Your task to perform on an android device: delete browsing data in the chrome app Image 0: 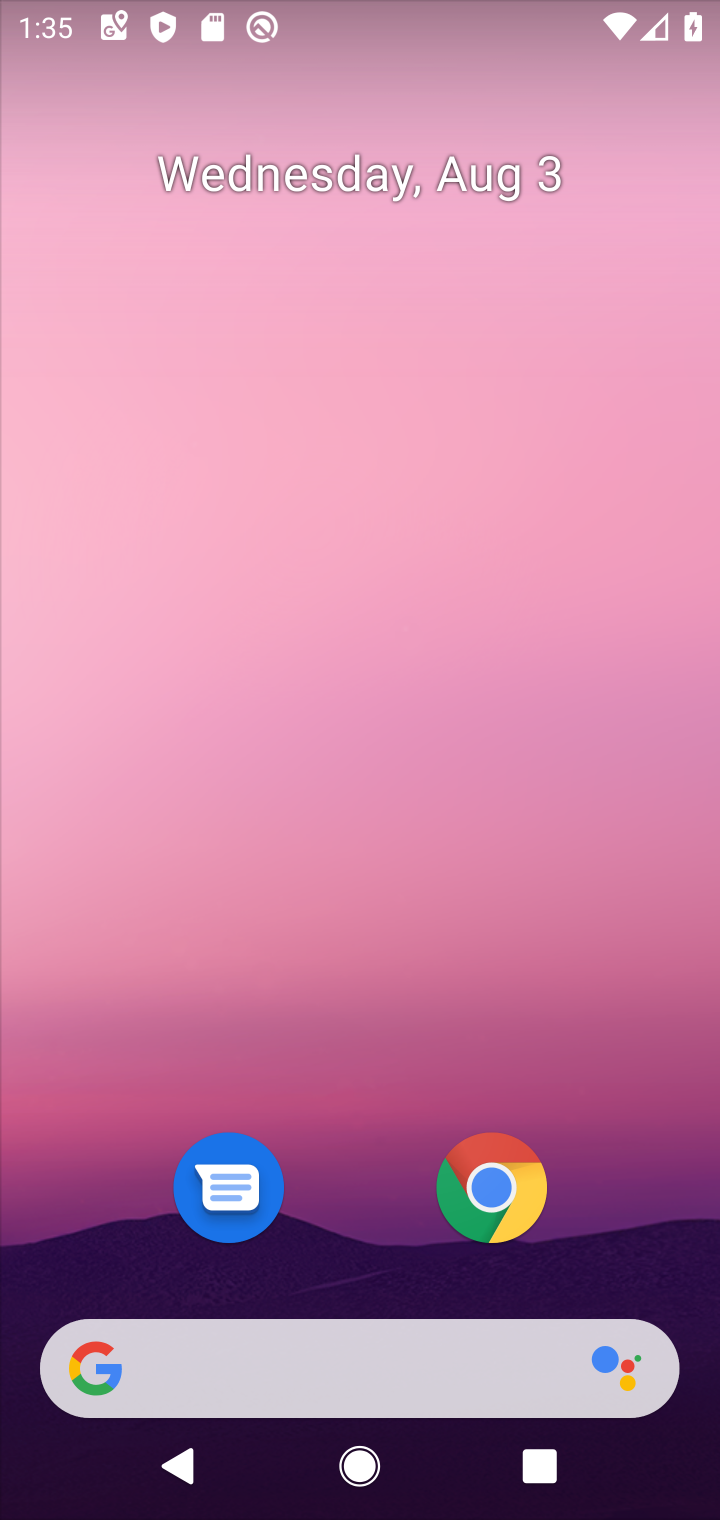
Step 0: click (492, 1186)
Your task to perform on an android device: delete browsing data in the chrome app Image 1: 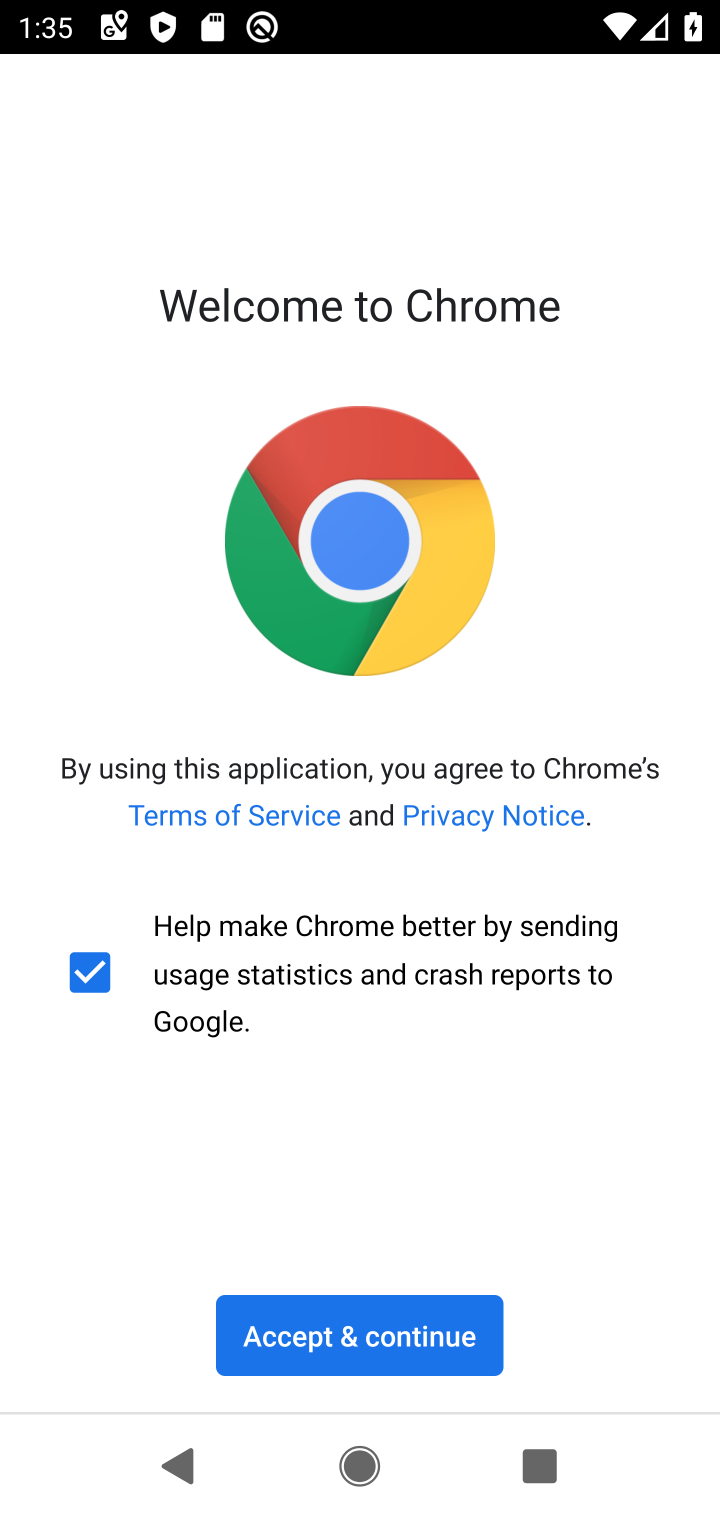
Step 1: click (445, 1320)
Your task to perform on an android device: delete browsing data in the chrome app Image 2: 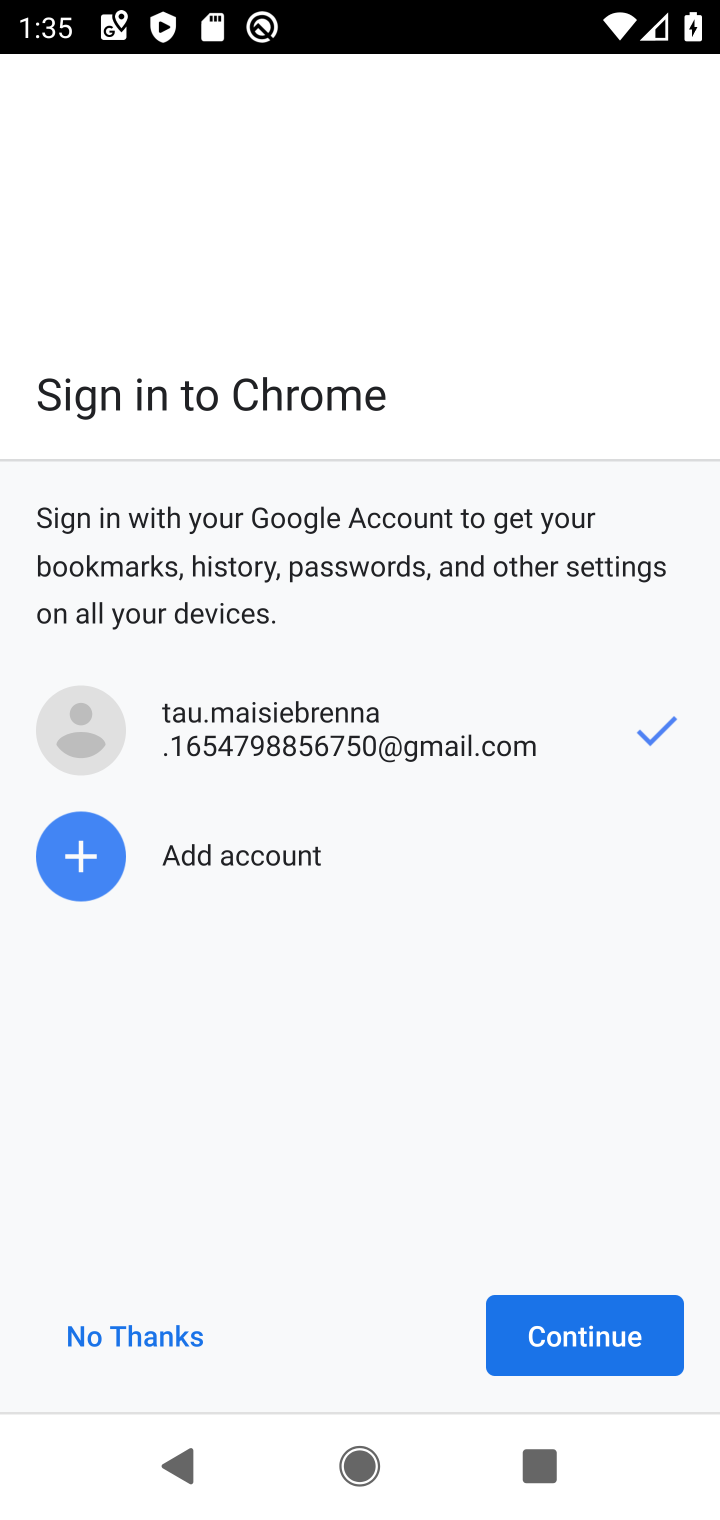
Step 2: click (530, 1327)
Your task to perform on an android device: delete browsing data in the chrome app Image 3: 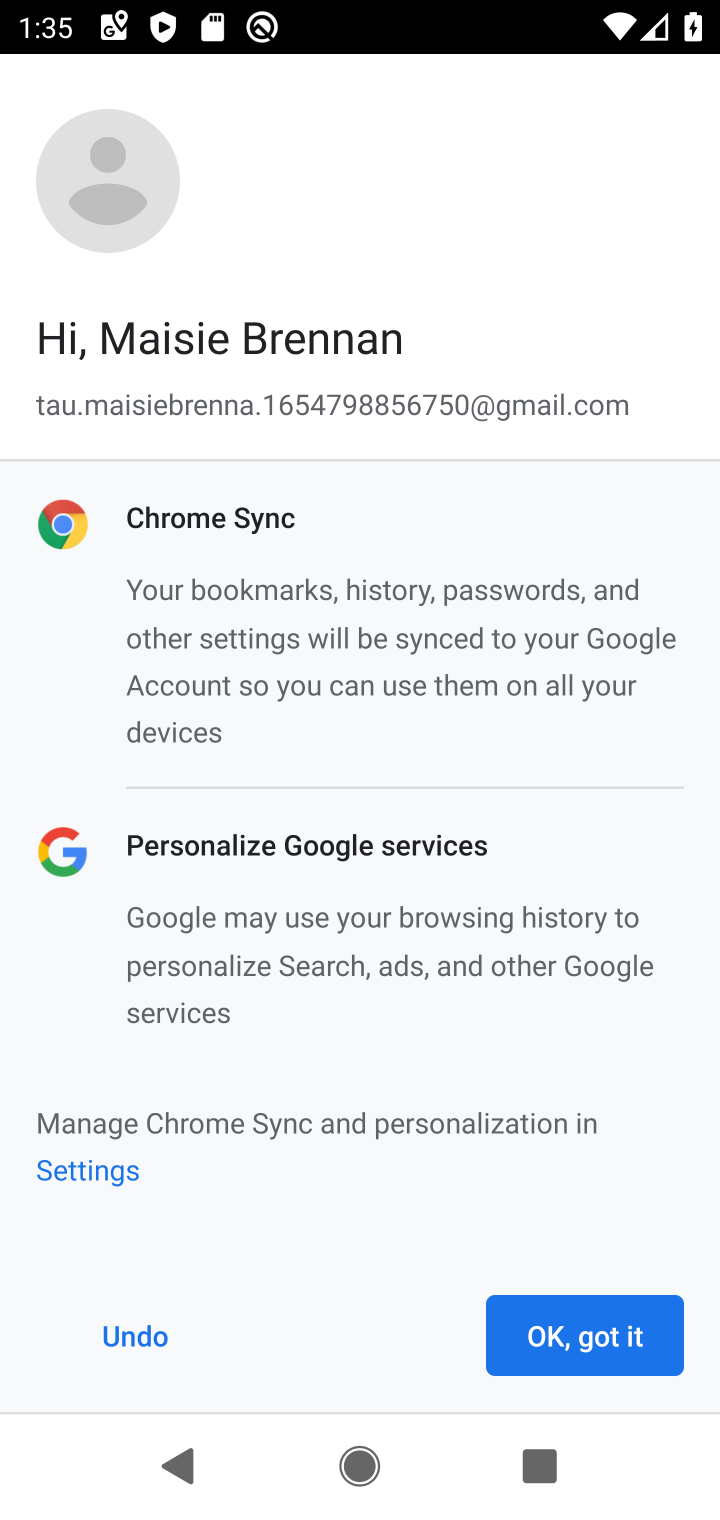
Step 3: click (530, 1327)
Your task to perform on an android device: delete browsing data in the chrome app Image 4: 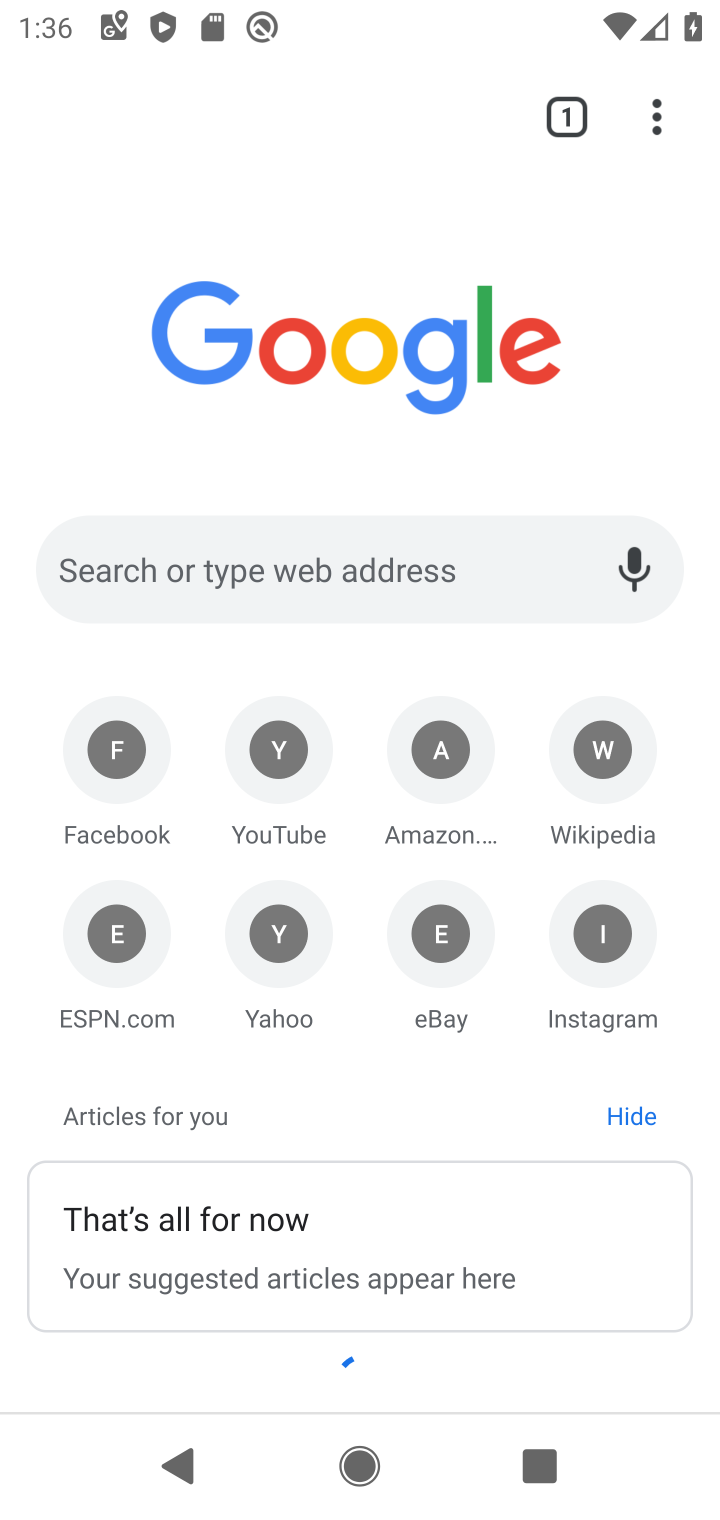
Step 4: click (656, 114)
Your task to perform on an android device: delete browsing data in the chrome app Image 5: 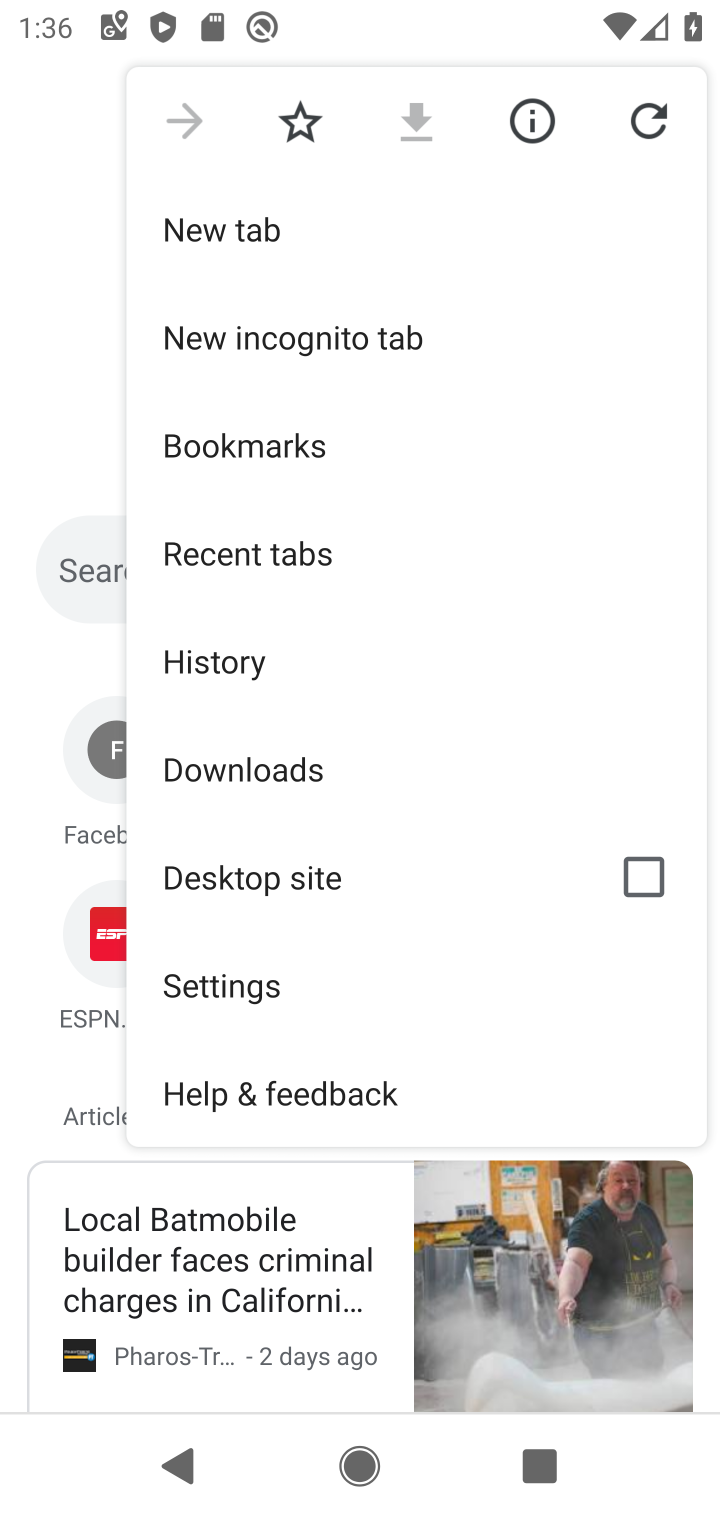
Step 5: click (244, 652)
Your task to perform on an android device: delete browsing data in the chrome app Image 6: 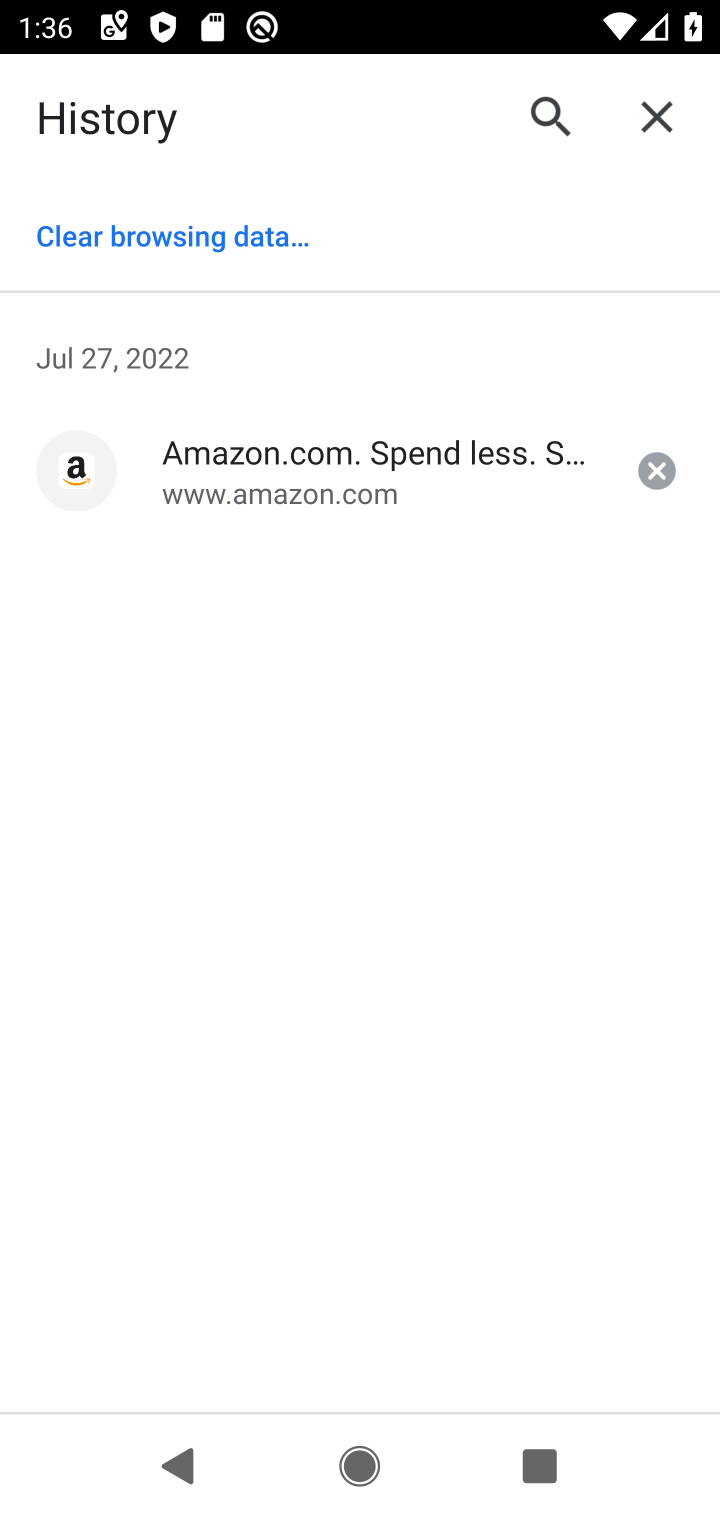
Step 6: click (192, 228)
Your task to perform on an android device: delete browsing data in the chrome app Image 7: 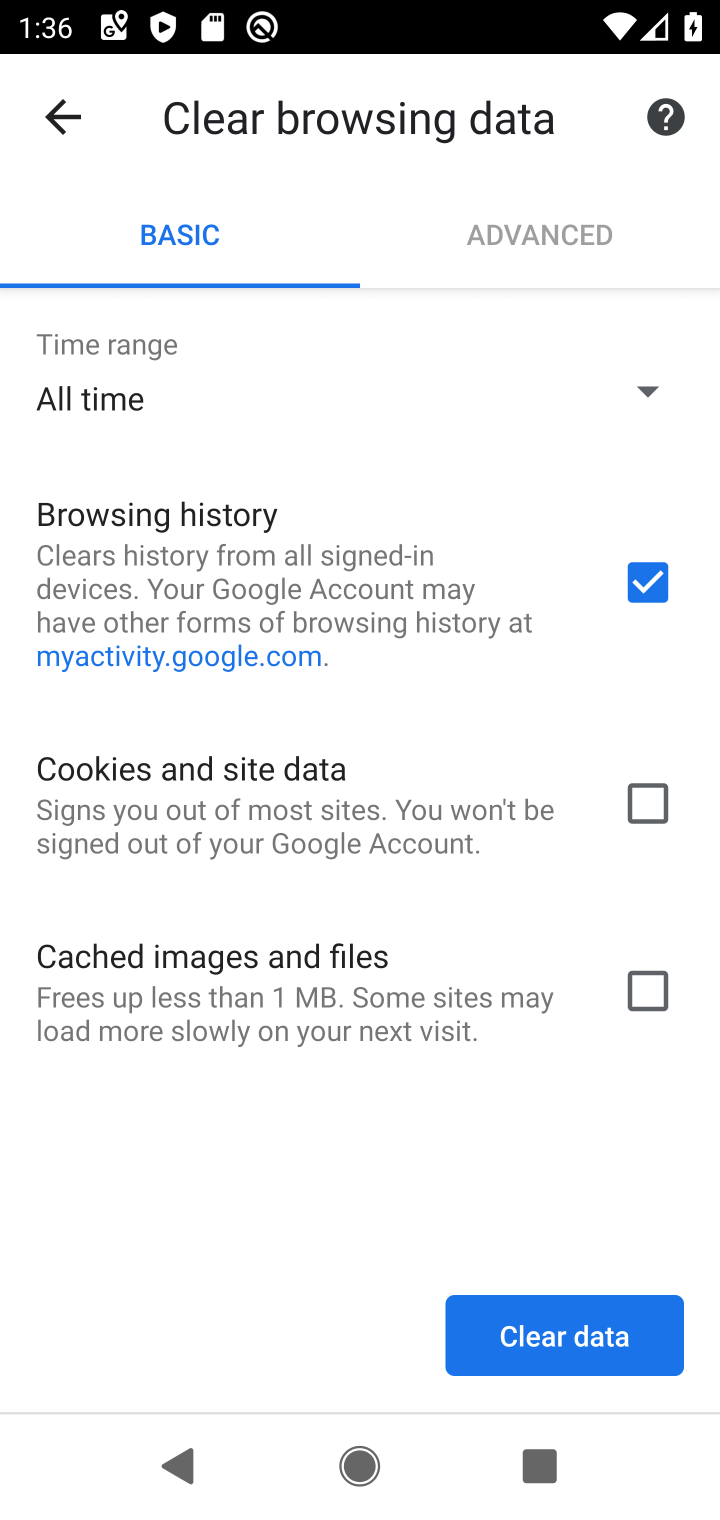
Step 7: click (632, 799)
Your task to perform on an android device: delete browsing data in the chrome app Image 8: 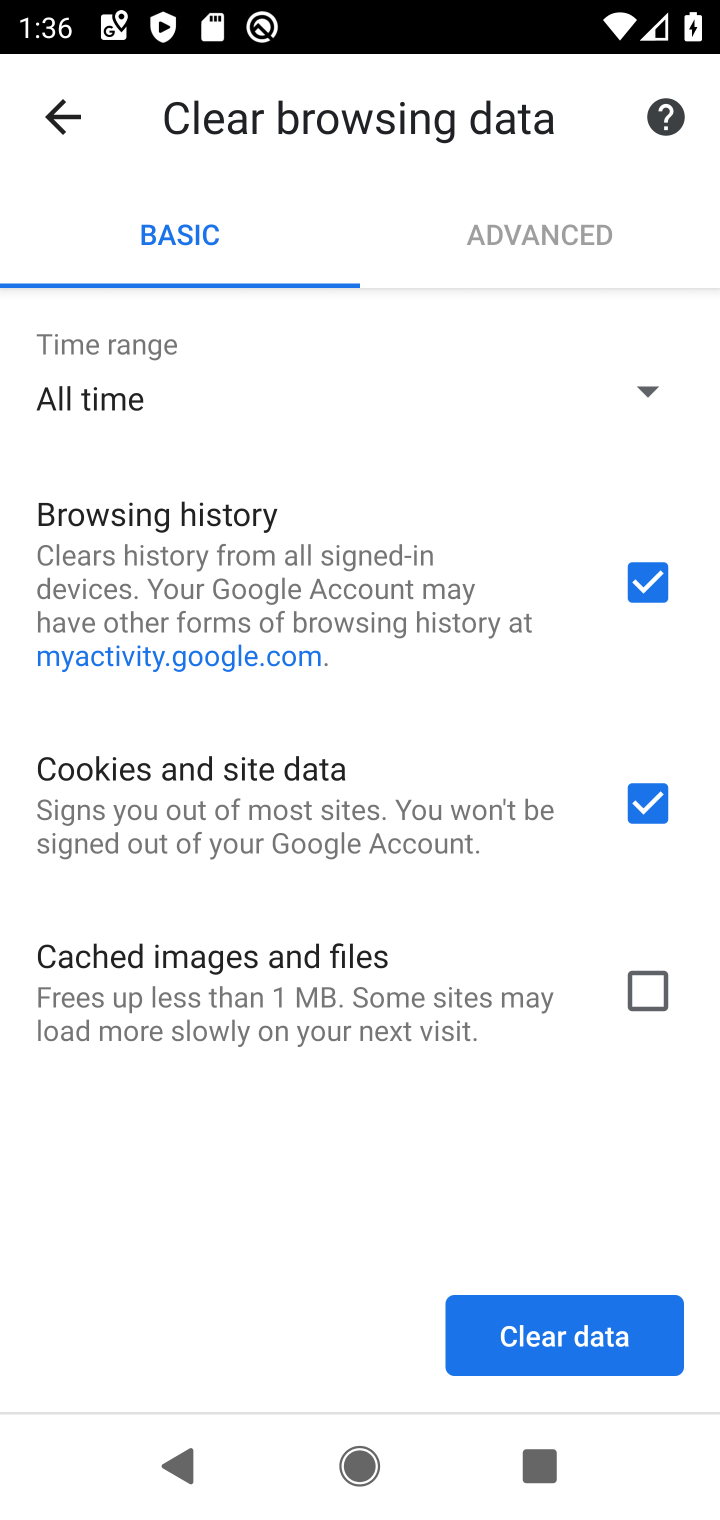
Step 8: click (654, 982)
Your task to perform on an android device: delete browsing data in the chrome app Image 9: 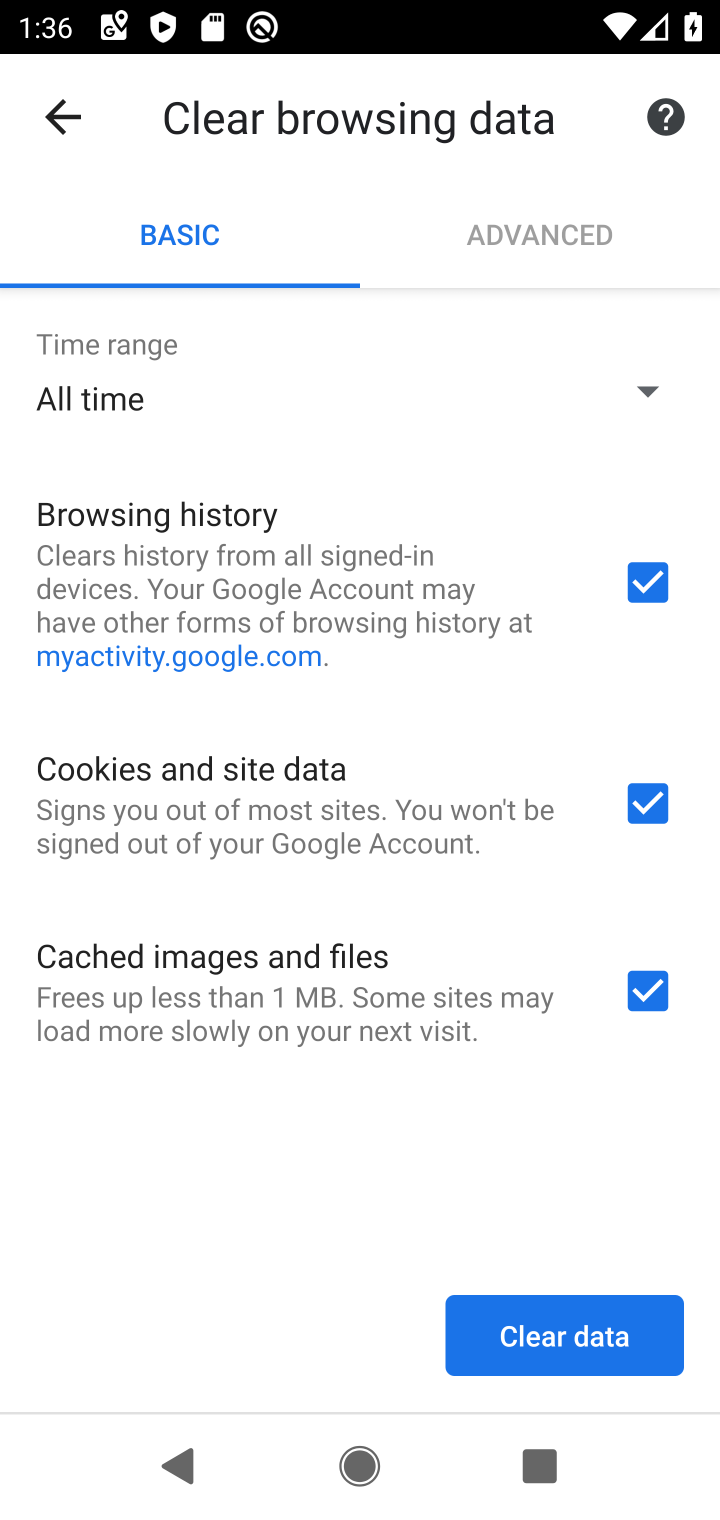
Step 9: click (591, 1330)
Your task to perform on an android device: delete browsing data in the chrome app Image 10: 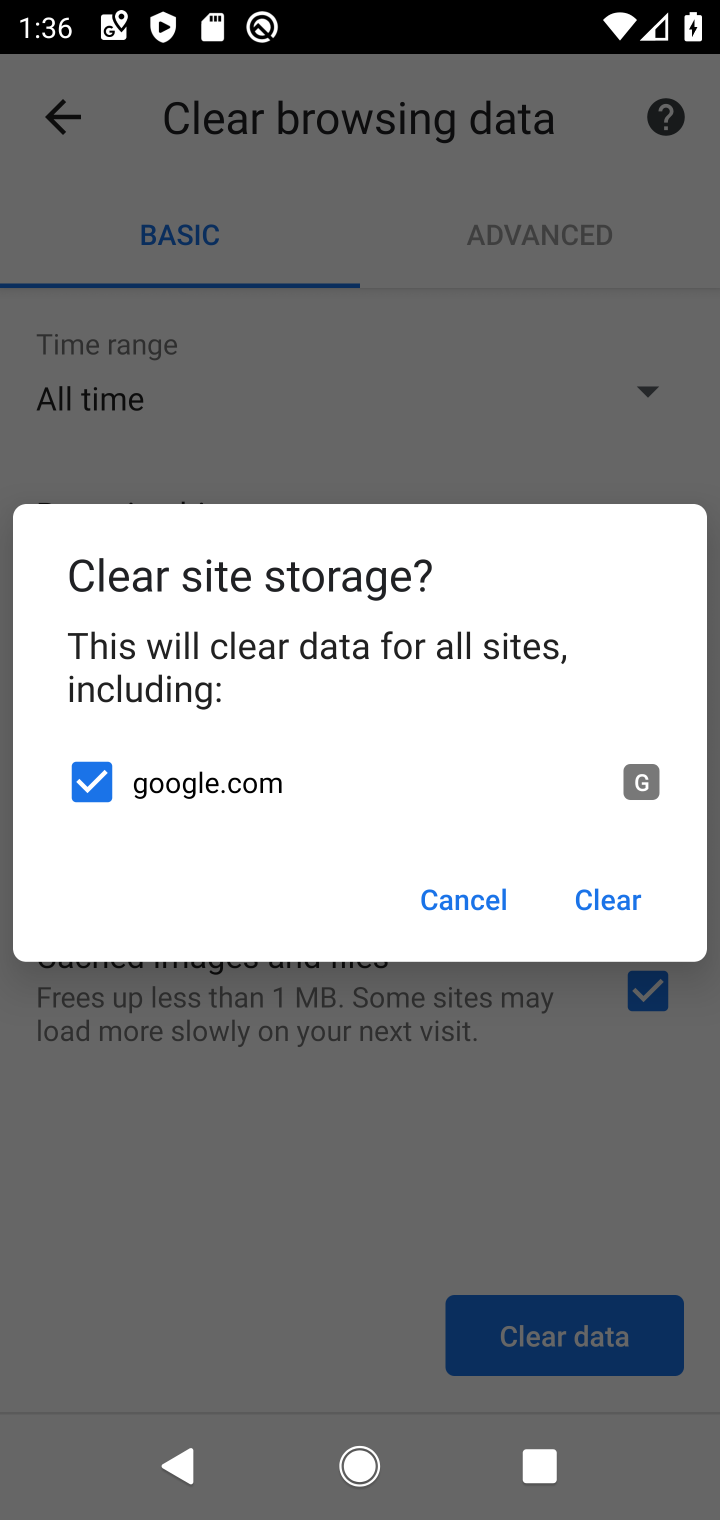
Step 10: click (616, 887)
Your task to perform on an android device: delete browsing data in the chrome app Image 11: 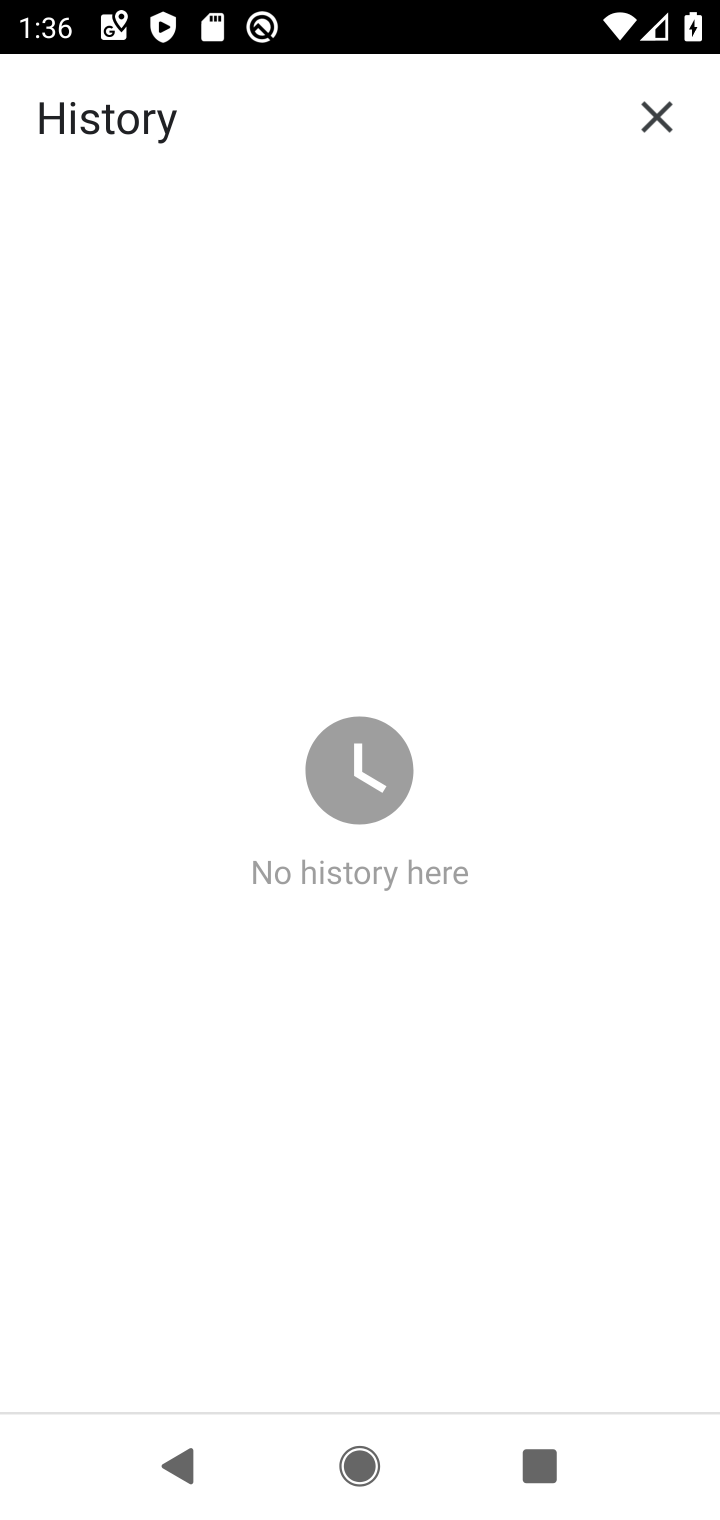
Step 11: task complete